Your task to perform on an android device: turn on wifi Image 0: 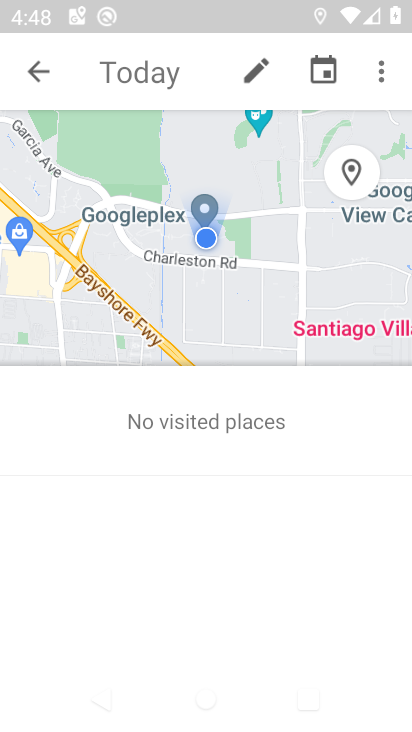
Step 0: press home button
Your task to perform on an android device: turn on wifi Image 1: 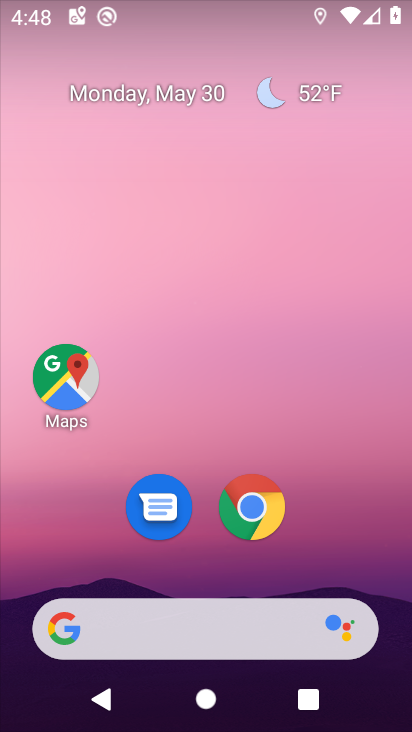
Step 1: task complete